Your task to perform on an android device: change the clock display to analog Image 0: 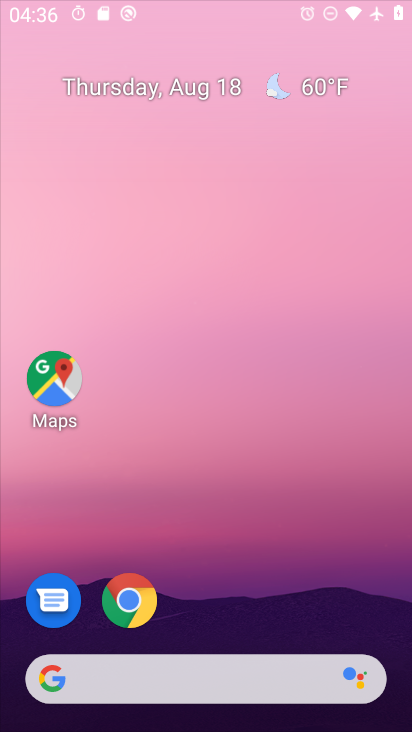
Step 0: press home button
Your task to perform on an android device: change the clock display to analog Image 1: 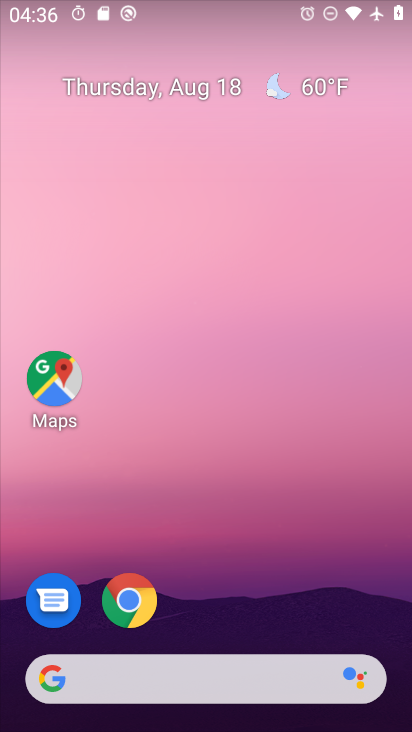
Step 1: drag from (257, 630) to (266, 96)
Your task to perform on an android device: change the clock display to analog Image 2: 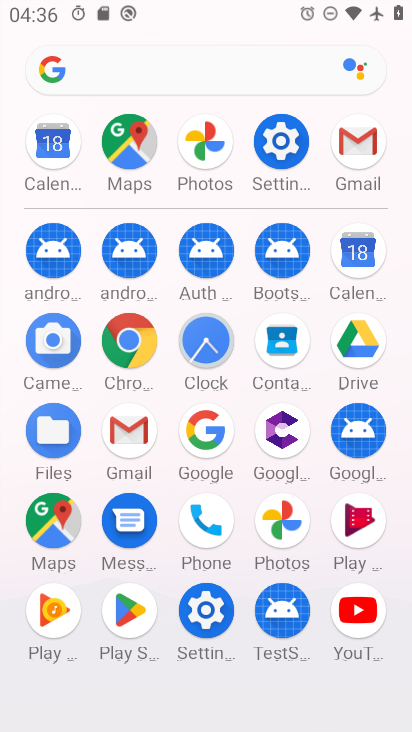
Step 2: click (214, 359)
Your task to perform on an android device: change the clock display to analog Image 3: 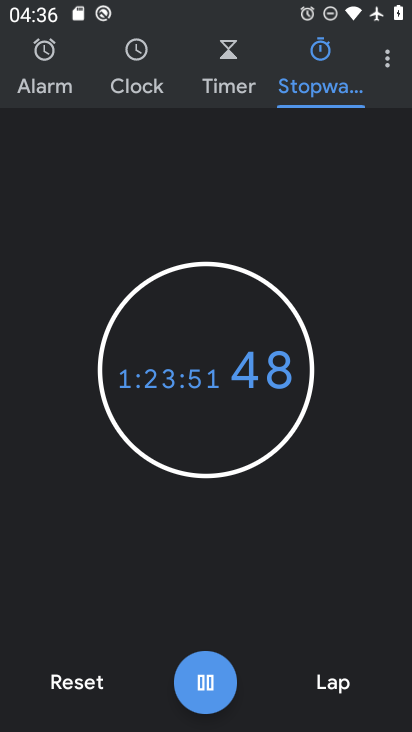
Step 3: click (391, 56)
Your task to perform on an android device: change the clock display to analog Image 4: 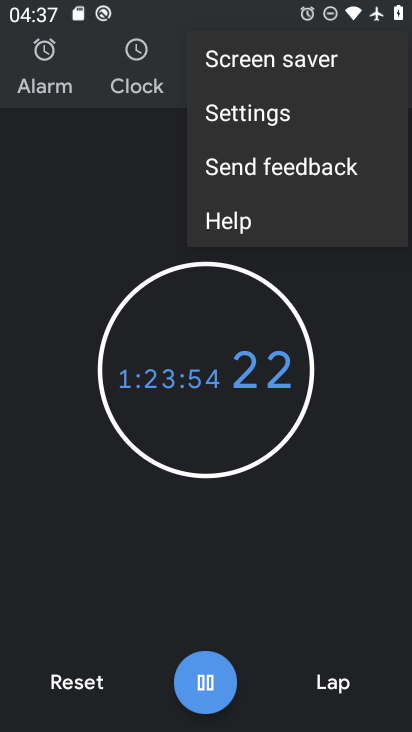
Step 4: click (270, 112)
Your task to perform on an android device: change the clock display to analog Image 5: 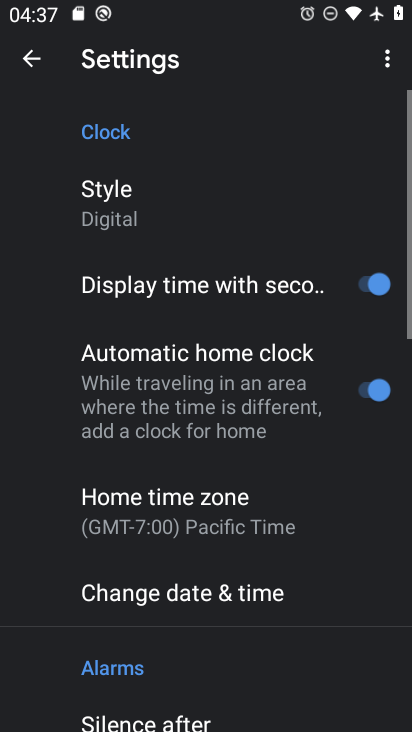
Step 5: click (96, 205)
Your task to perform on an android device: change the clock display to analog Image 6: 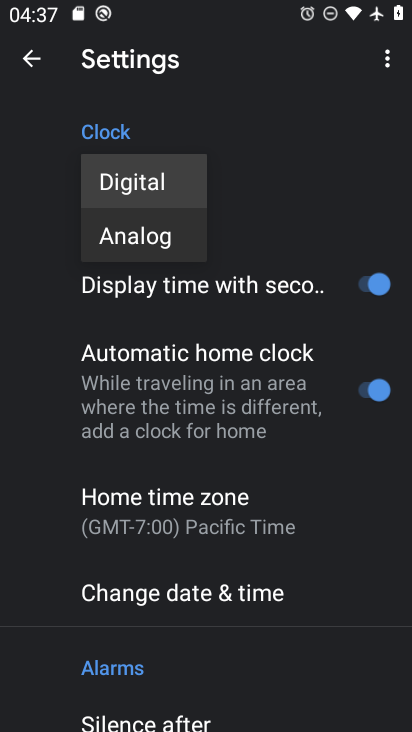
Step 6: click (141, 239)
Your task to perform on an android device: change the clock display to analog Image 7: 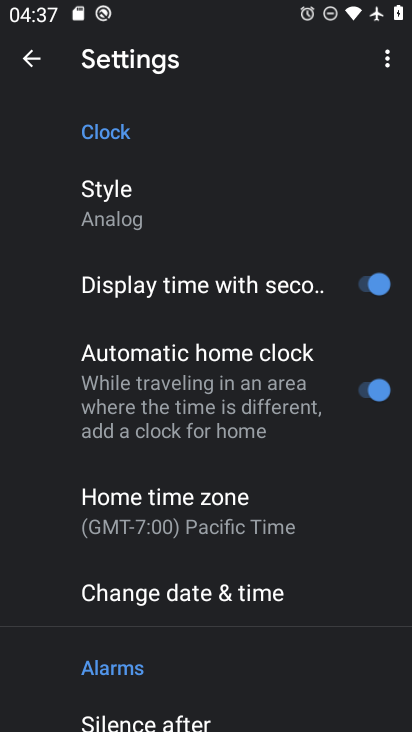
Step 7: task complete